Your task to perform on an android device: What's the weather? Image 0: 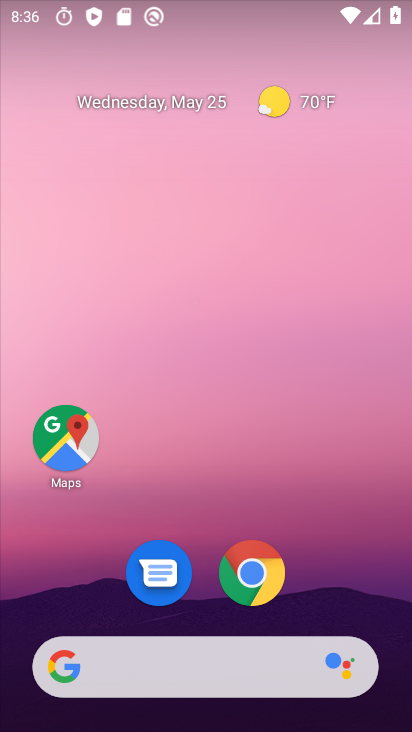
Step 0: click (270, 574)
Your task to perform on an android device: What's the weather? Image 1: 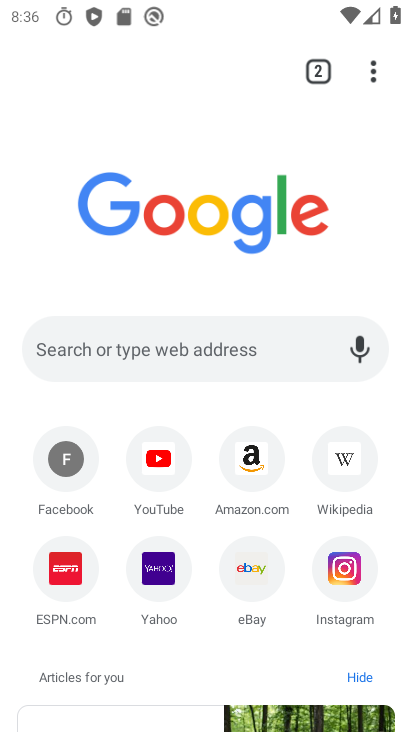
Step 1: click (224, 348)
Your task to perform on an android device: What's the weather? Image 2: 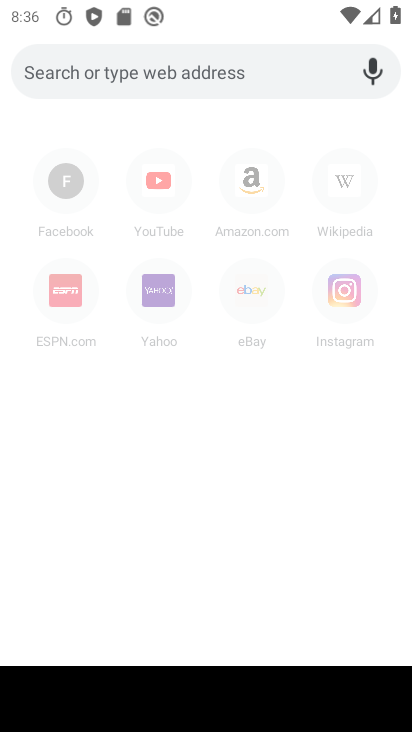
Step 2: type "What's the weather?"
Your task to perform on an android device: What's the weather? Image 3: 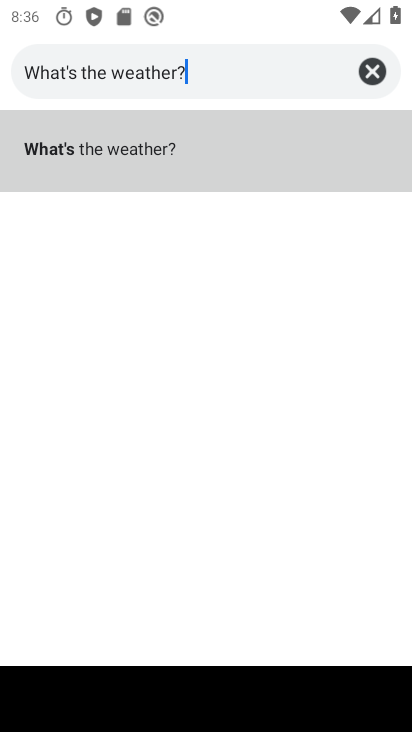
Step 3: click (111, 157)
Your task to perform on an android device: What's the weather? Image 4: 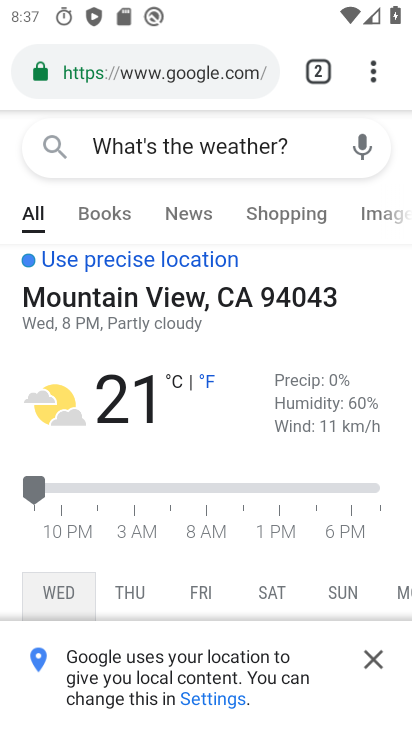
Step 4: task complete